Your task to perform on an android device: Open the stopwatch Image 0: 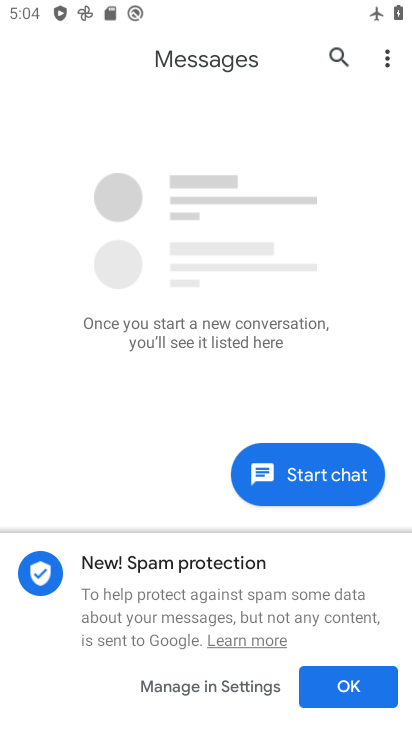
Step 0: press home button
Your task to perform on an android device: Open the stopwatch Image 1: 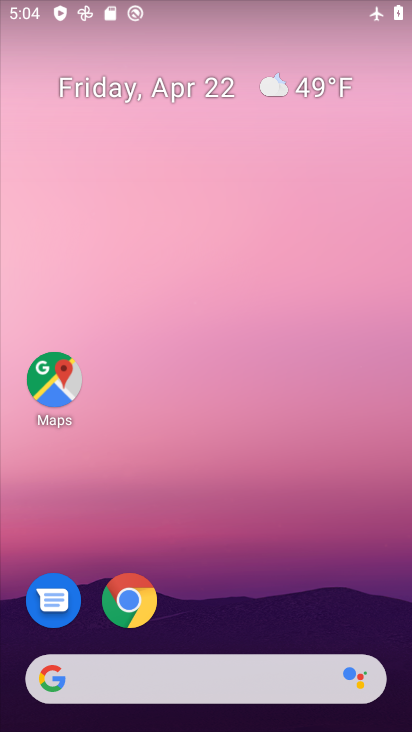
Step 1: drag from (209, 575) to (203, 85)
Your task to perform on an android device: Open the stopwatch Image 2: 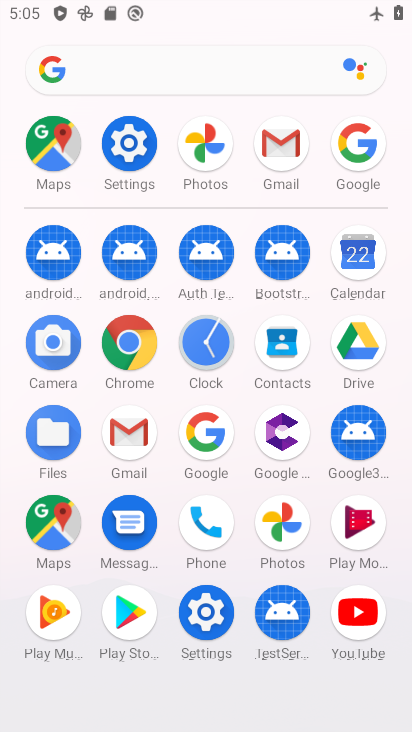
Step 2: click (203, 340)
Your task to perform on an android device: Open the stopwatch Image 3: 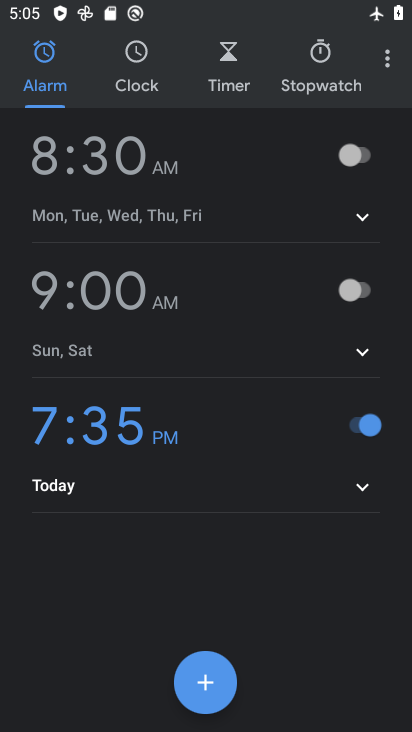
Step 3: click (319, 55)
Your task to perform on an android device: Open the stopwatch Image 4: 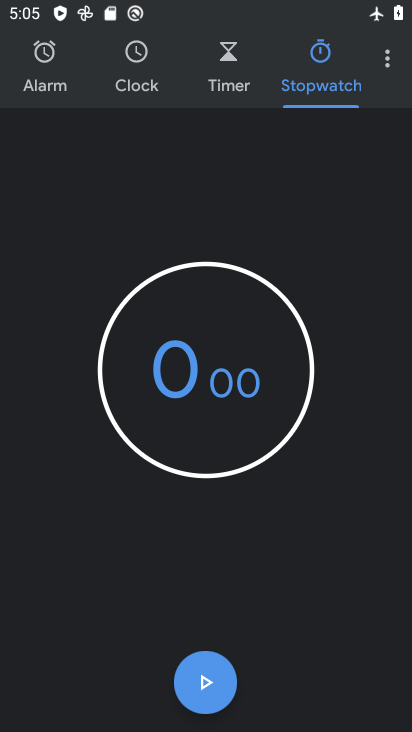
Step 4: task complete